Your task to perform on an android device: clear history in the chrome app Image 0: 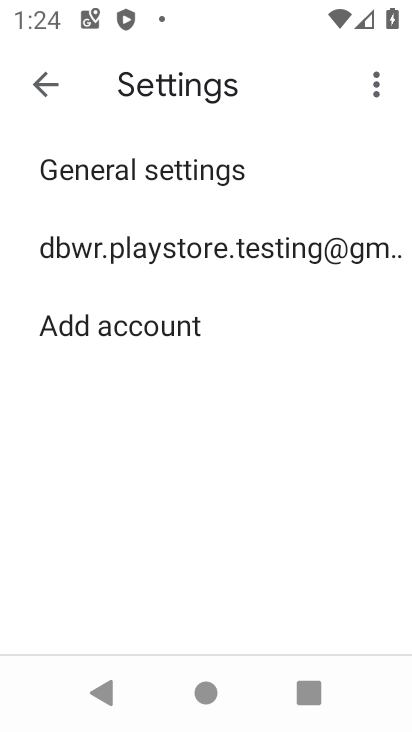
Step 0: press home button
Your task to perform on an android device: clear history in the chrome app Image 1: 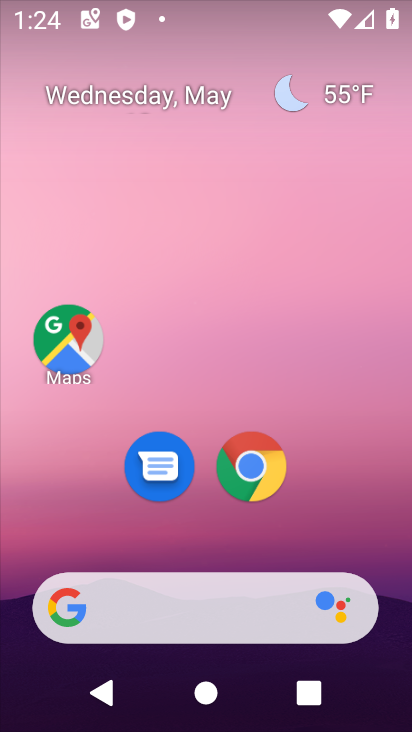
Step 1: drag from (163, 542) to (219, 45)
Your task to perform on an android device: clear history in the chrome app Image 2: 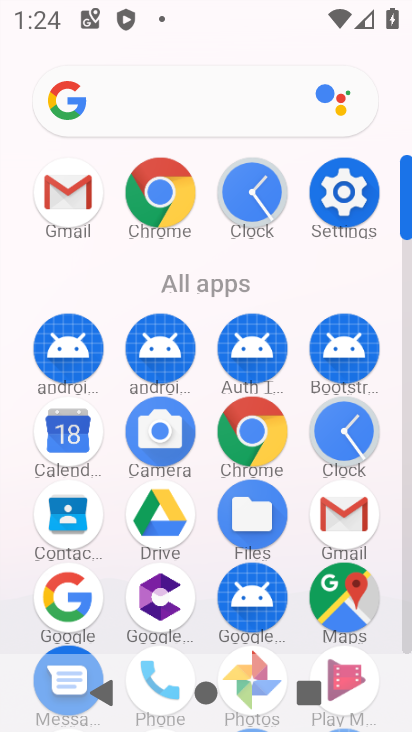
Step 2: click (166, 193)
Your task to perform on an android device: clear history in the chrome app Image 3: 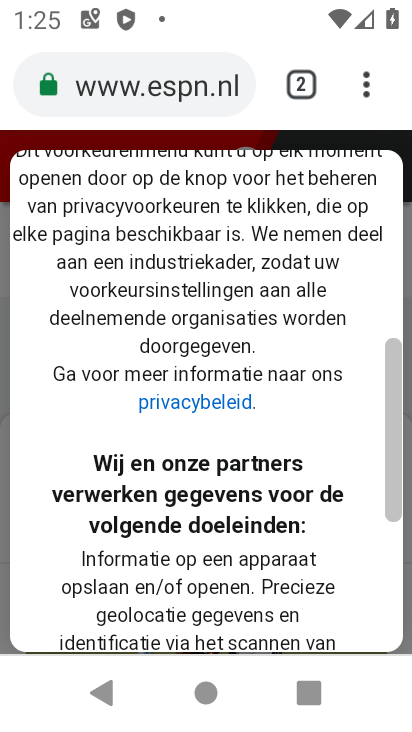
Step 3: click (372, 93)
Your task to perform on an android device: clear history in the chrome app Image 4: 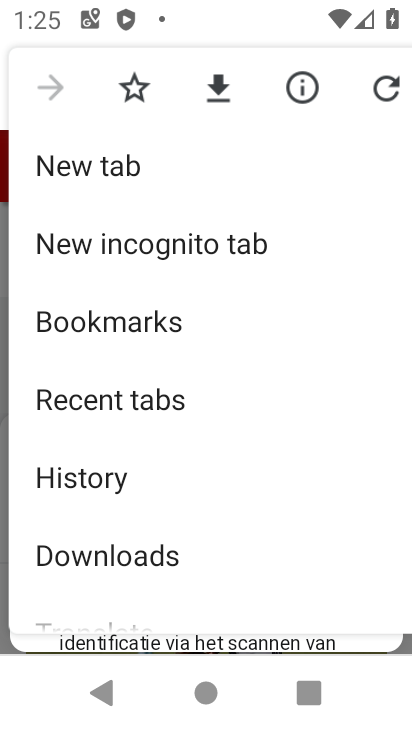
Step 4: click (81, 465)
Your task to perform on an android device: clear history in the chrome app Image 5: 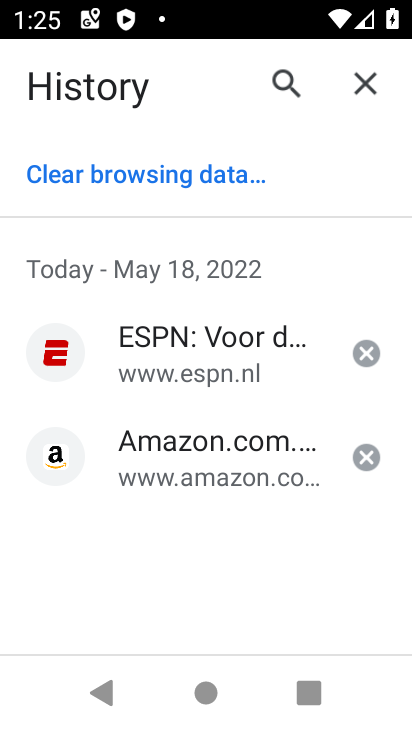
Step 5: click (172, 174)
Your task to perform on an android device: clear history in the chrome app Image 6: 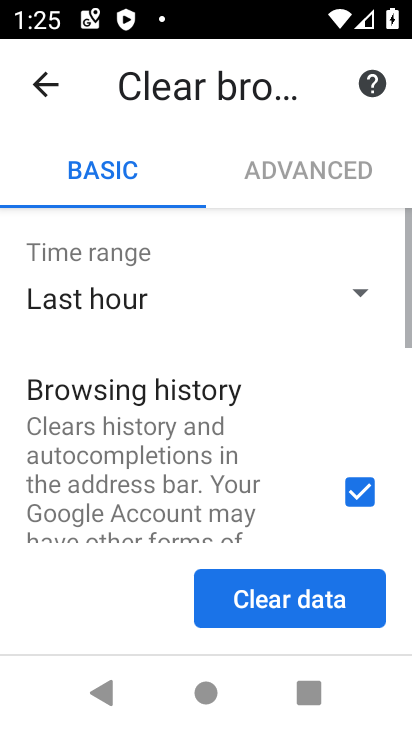
Step 6: click (267, 610)
Your task to perform on an android device: clear history in the chrome app Image 7: 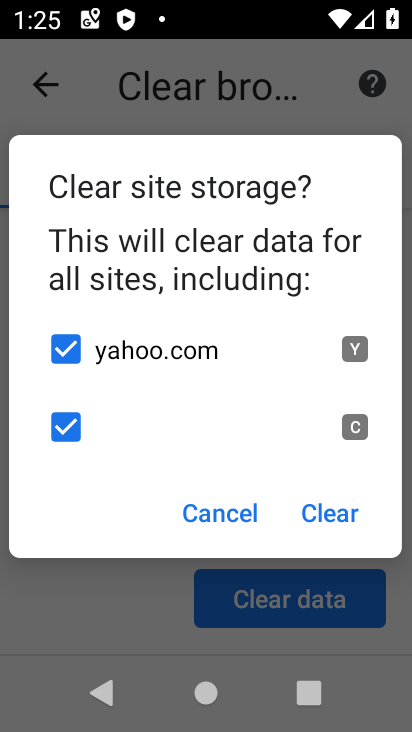
Step 7: click (333, 510)
Your task to perform on an android device: clear history in the chrome app Image 8: 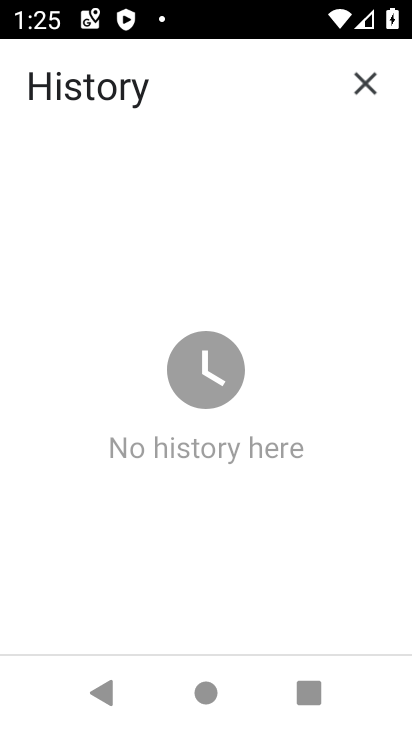
Step 8: task complete